Your task to perform on an android device: Go to wifi settings Image 0: 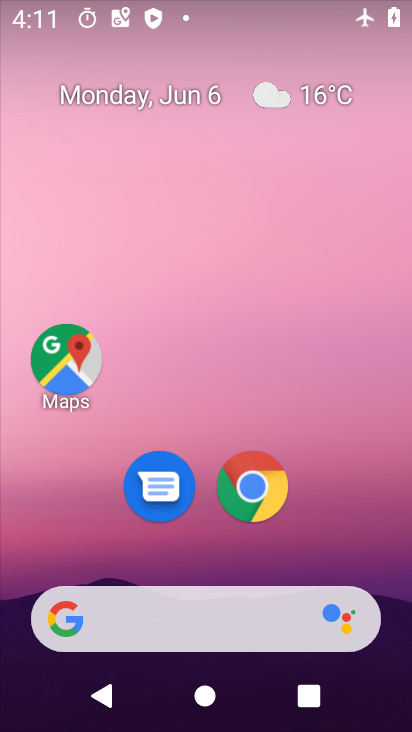
Step 0: drag from (341, 474) to (333, 64)
Your task to perform on an android device: Go to wifi settings Image 1: 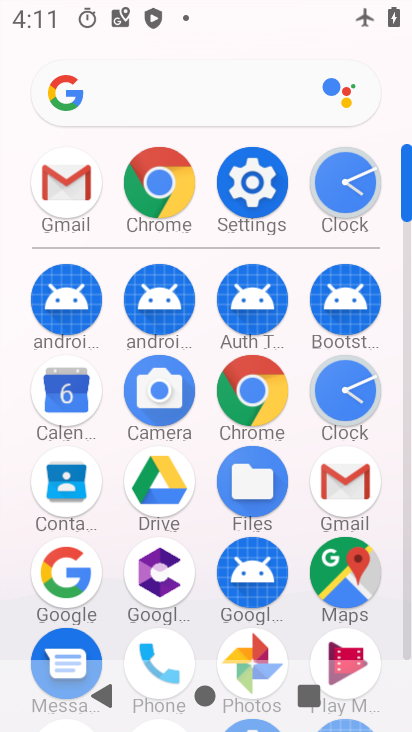
Step 1: click (273, 166)
Your task to perform on an android device: Go to wifi settings Image 2: 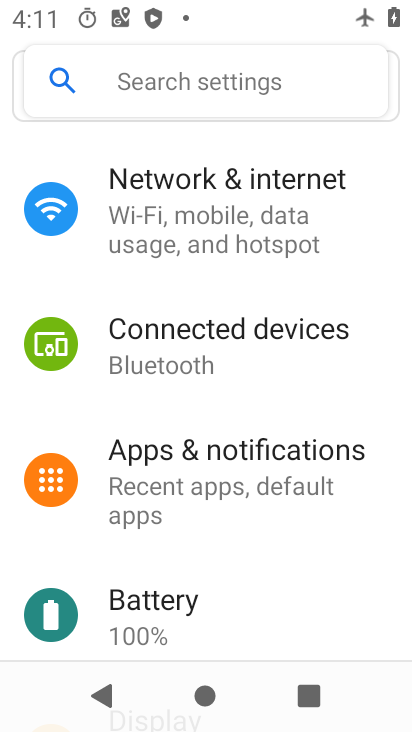
Step 2: click (240, 211)
Your task to perform on an android device: Go to wifi settings Image 3: 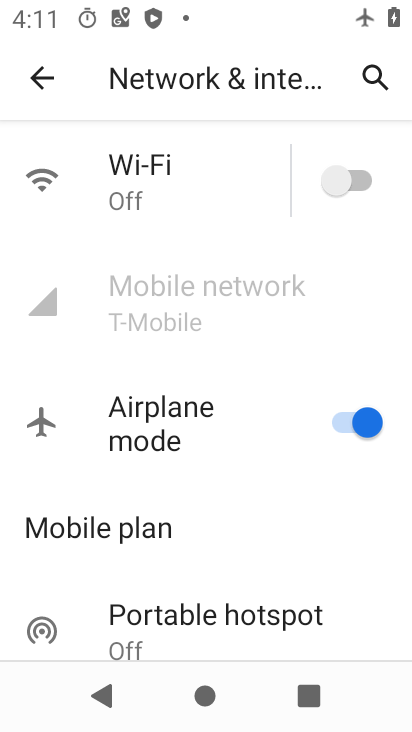
Step 3: click (223, 166)
Your task to perform on an android device: Go to wifi settings Image 4: 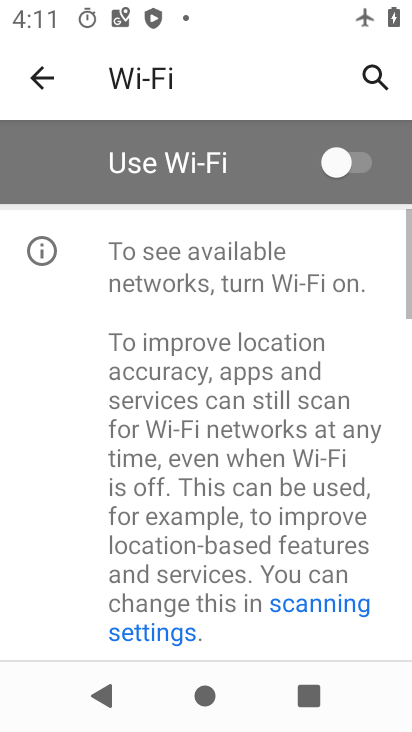
Step 4: click (344, 180)
Your task to perform on an android device: Go to wifi settings Image 5: 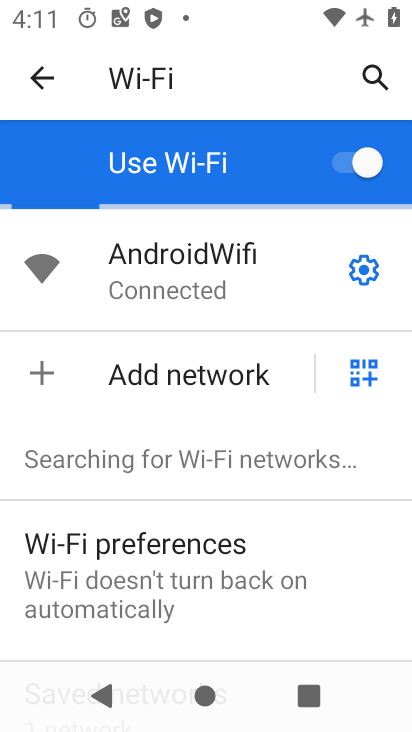
Step 5: click (369, 275)
Your task to perform on an android device: Go to wifi settings Image 6: 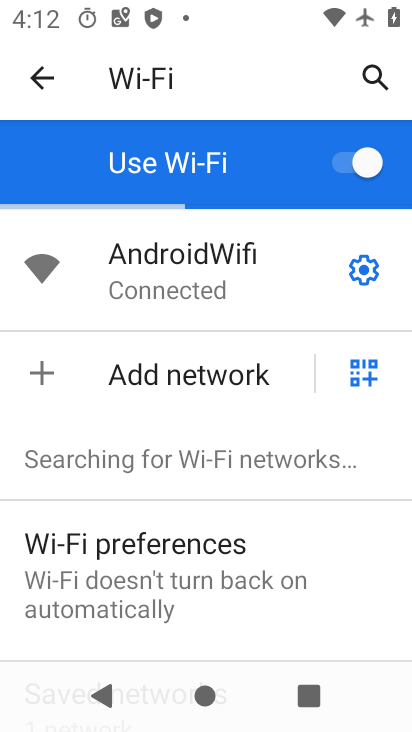
Step 6: click (367, 255)
Your task to perform on an android device: Go to wifi settings Image 7: 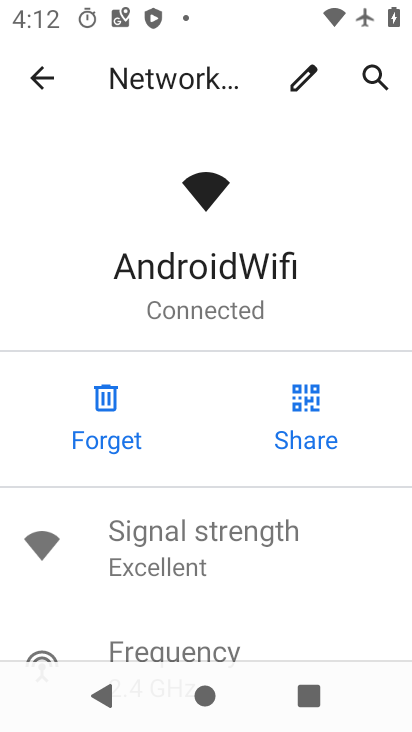
Step 7: task complete